Your task to perform on an android device: Go to Maps Image 0: 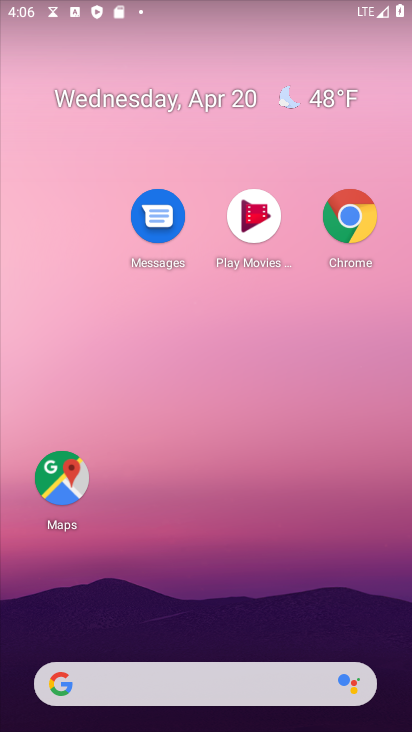
Step 0: click (67, 478)
Your task to perform on an android device: Go to Maps Image 1: 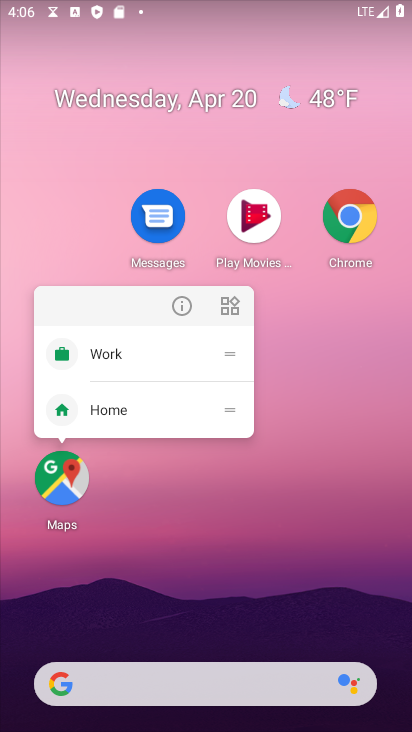
Step 1: click (180, 303)
Your task to perform on an android device: Go to Maps Image 2: 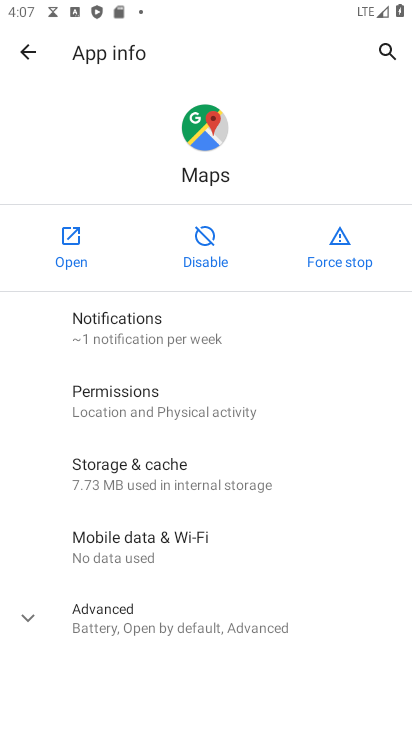
Step 2: click (79, 242)
Your task to perform on an android device: Go to Maps Image 3: 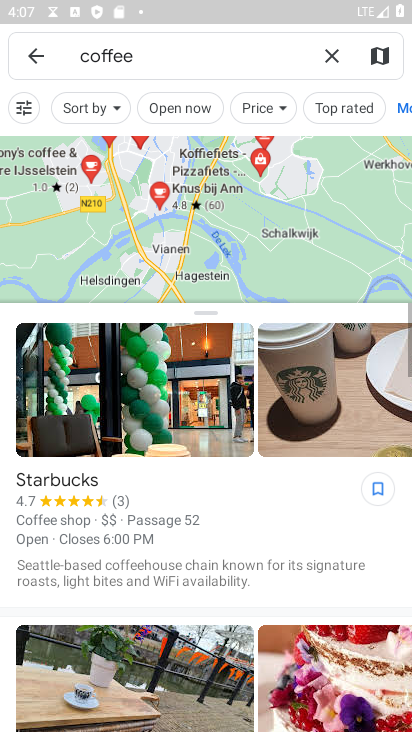
Step 3: click (24, 61)
Your task to perform on an android device: Go to Maps Image 4: 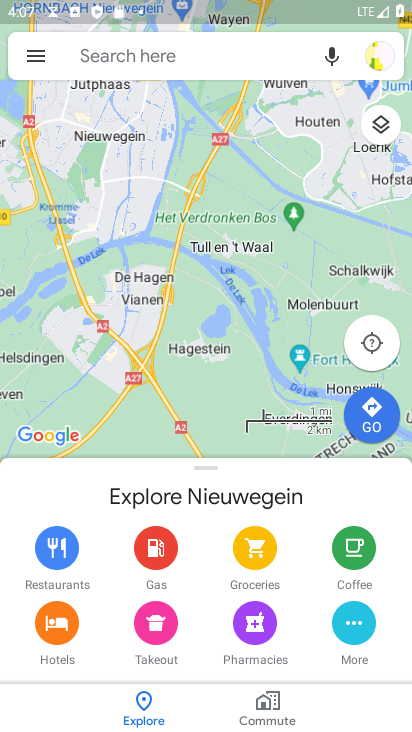
Step 4: task complete